Your task to perform on an android device: toggle pop-ups in chrome Image 0: 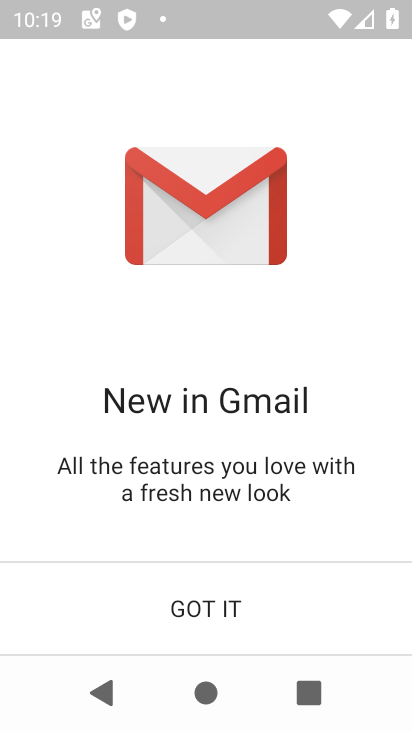
Step 0: press home button
Your task to perform on an android device: toggle pop-ups in chrome Image 1: 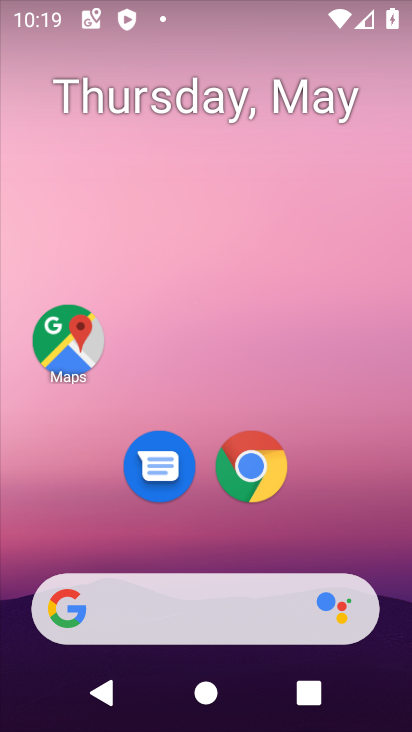
Step 1: click (257, 461)
Your task to perform on an android device: toggle pop-ups in chrome Image 2: 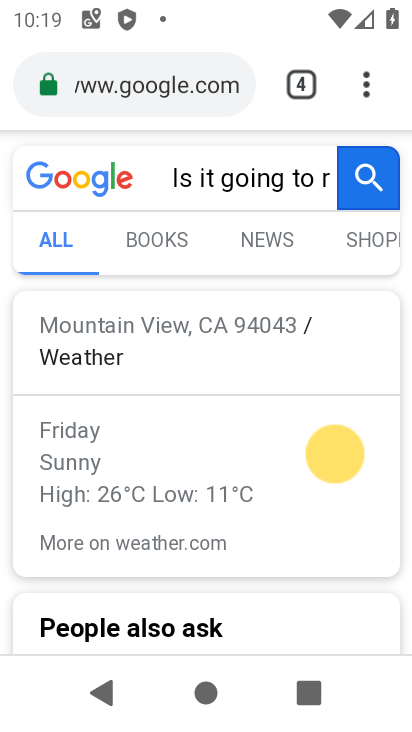
Step 2: click (364, 72)
Your task to perform on an android device: toggle pop-ups in chrome Image 3: 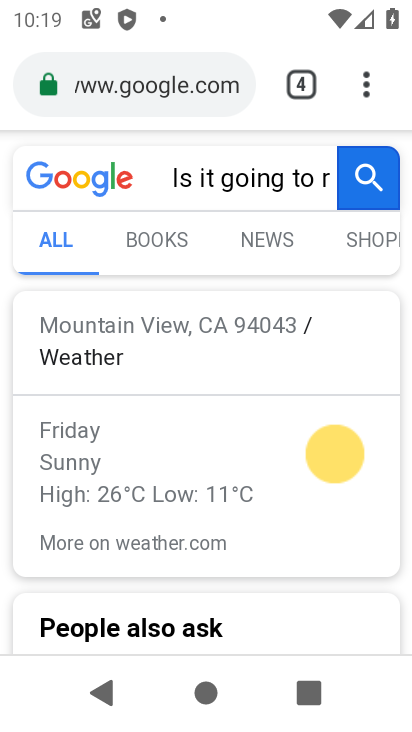
Step 3: click (371, 85)
Your task to perform on an android device: toggle pop-ups in chrome Image 4: 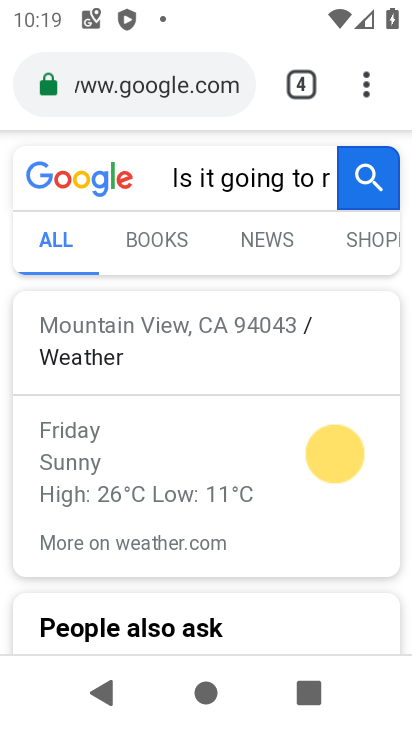
Step 4: click (352, 82)
Your task to perform on an android device: toggle pop-ups in chrome Image 5: 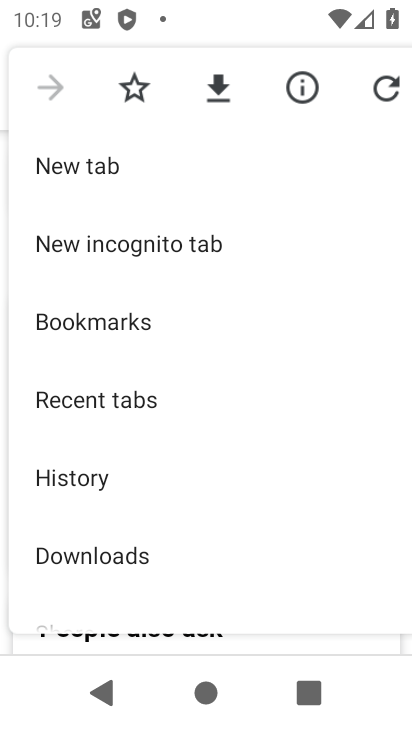
Step 5: drag from (222, 533) to (193, 190)
Your task to perform on an android device: toggle pop-ups in chrome Image 6: 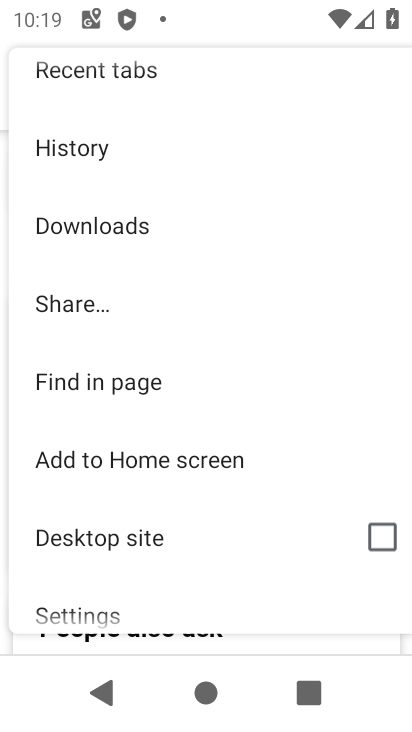
Step 6: drag from (157, 550) to (161, 309)
Your task to perform on an android device: toggle pop-ups in chrome Image 7: 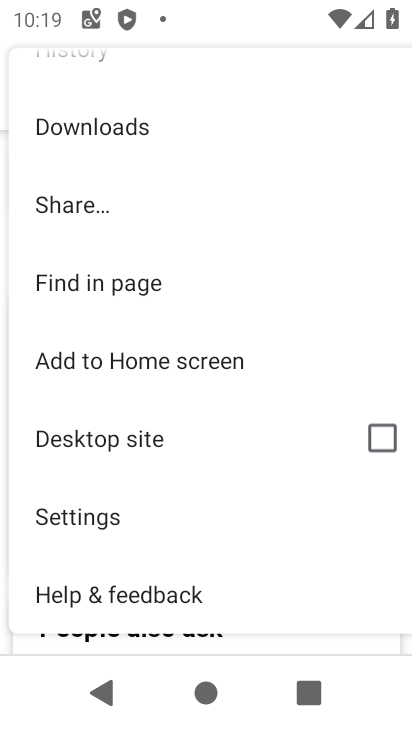
Step 7: click (139, 509)
Your task to perform on an android device: toggle pop-ups in chrome Image 8: 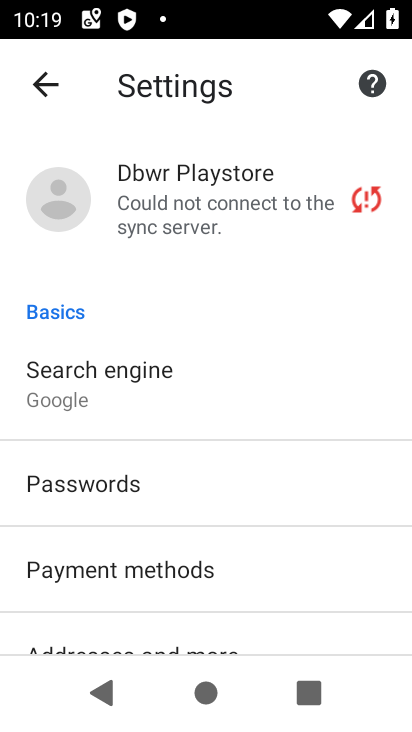
Step 8: drag from (182, 580) to (239, 257)
Your task to perform on an android device: toggle pop-ups in chrome Image 9: 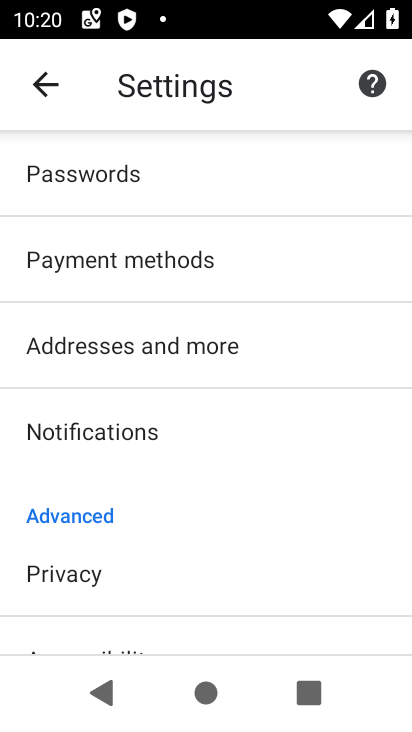
Step 9: drag from (125, 573) to (195, 242)
Your task to perform on an android device: toggle pop-ups in chrome Image 10: 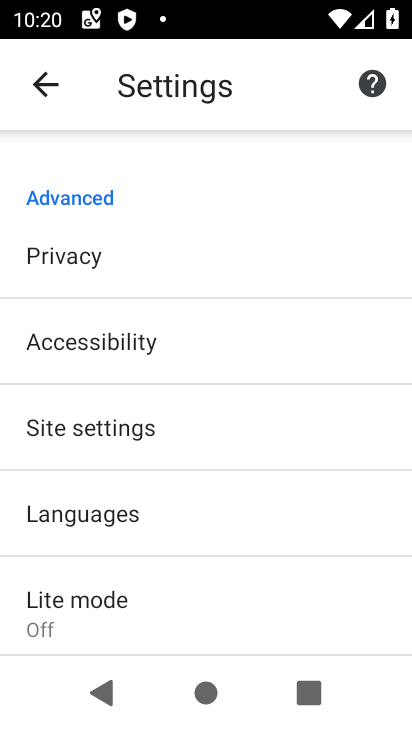
Step 10: click (136, 421)
Your task to perform on an android device: toggle pop-ups in chrome Image 11: 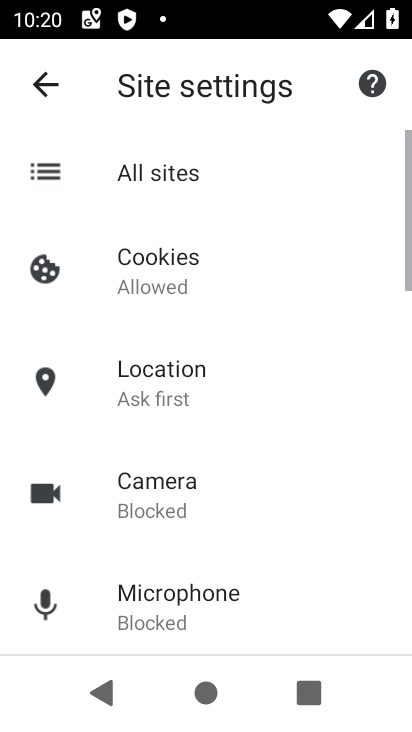
Step 11: drag from (180, 596) to (280, 197)
Your task to perform on an android device: toggle pop-ups in chrome Image 12: 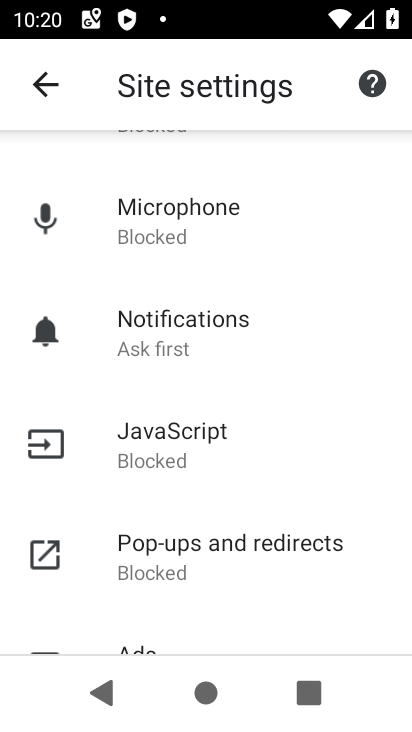
Step 12: click (167, 558)
Your task to perform on an android device: toggle pop-ups in chrome Image 13: 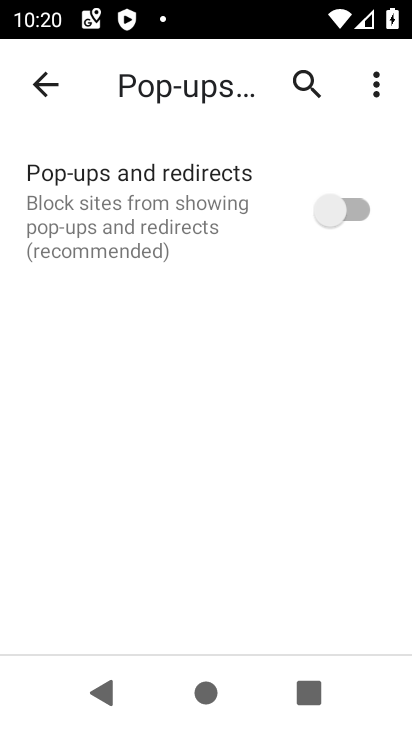
Step 13: click (345, 206)
Your task to perform on an android device: toggle pop-ups in chrome Image 14: 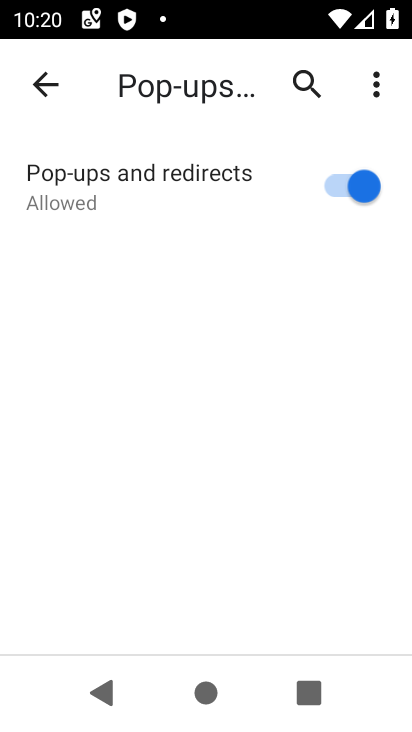
Step 14: drag from (275, 540) to (280, 295)
Your task to perform on an android device: toggle pop-ups in chrome Image 15: 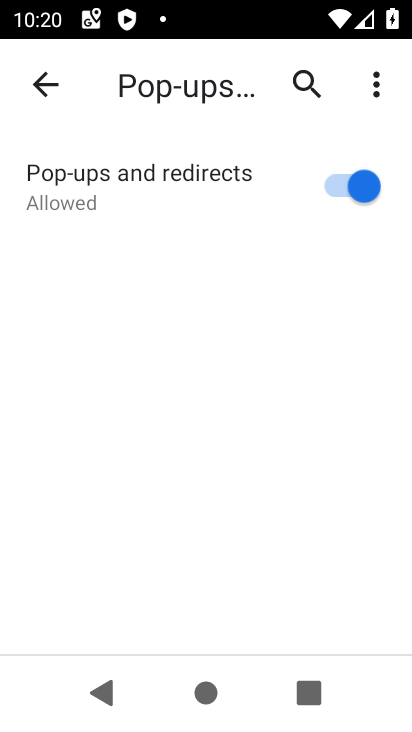
Step 15: press home button
Your task to perform on an android device: toggle pop-ups in chrome Image 16: 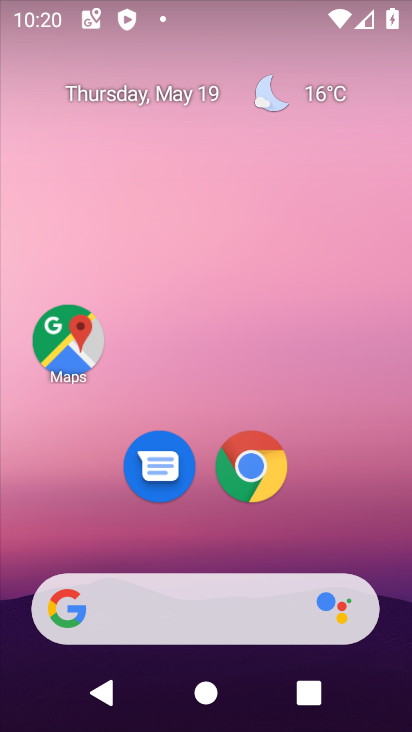
Step 16: click (254, 471)
Your task to perform on an android device: toggle pop-ups in chrome Image 17: 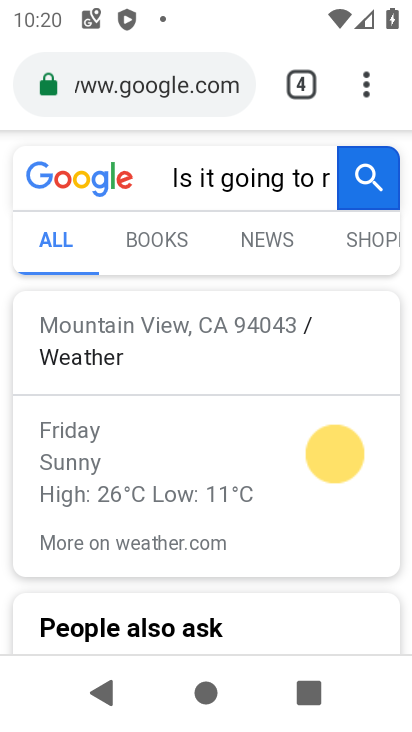
Step 17: click (372, 63)
Your task to perform on an android device: toggle pop-ups in chrome Image 18: 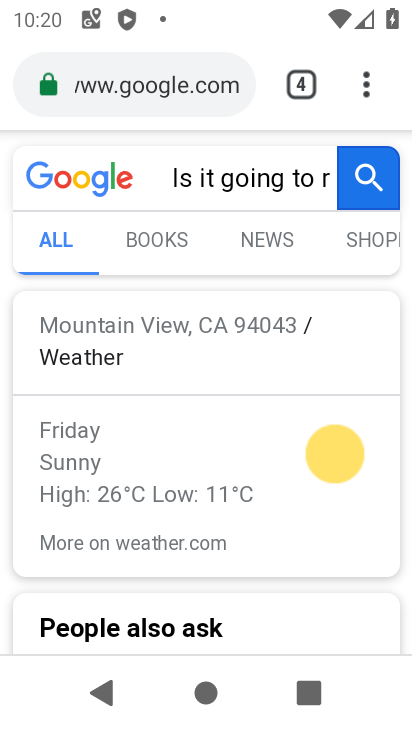
Step 18: click (376, 78)
Your task to perform on an android device: toggle pop-ups in chrome Image 19: 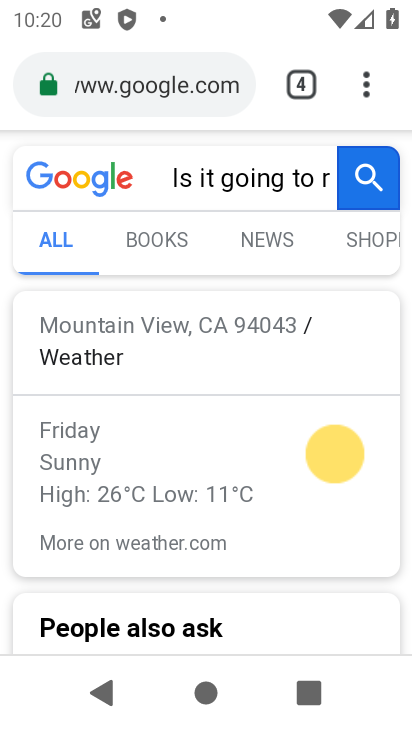
Step 19: click (361, 94)
Your task to perform on an android device: toggle pop-ups in chrome Image 20: 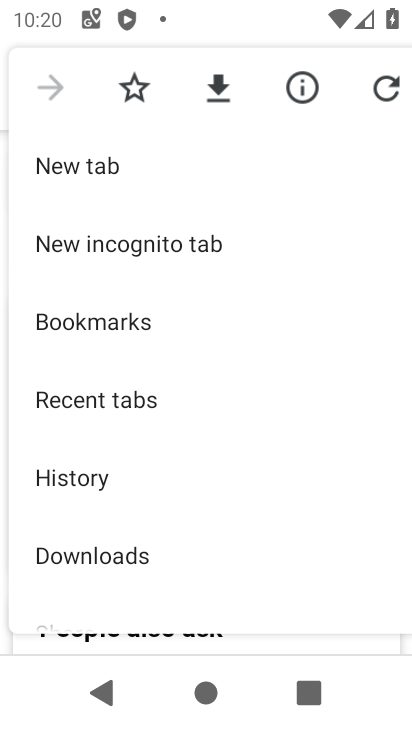
Step 20: drag from (192, 500) to (267, 180)
Your task to perform on an android device: toggle pop-ups in chrome Image 21: 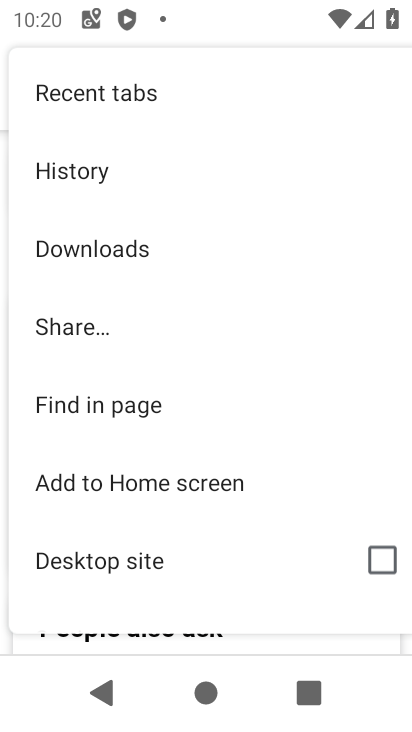
Step 21: drag from (133, 551) to (256, 170)
Your task to perform on an android device: toggle pop-ups in chrome Image 22: 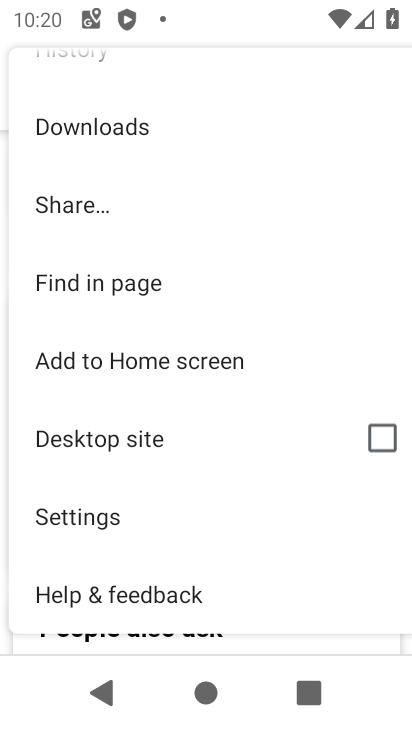
Step 22: click (99, 503)
Your task to perform on an android device: toggle pop-ups in chrome Image 23: 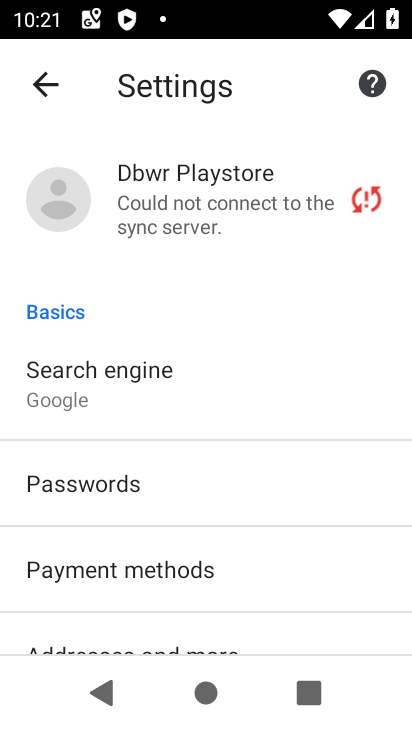
Step 23: drag from (91, 580) to (201, 202)
Your task to perform on an android device: toggle pop-ups in chrome Image 24: 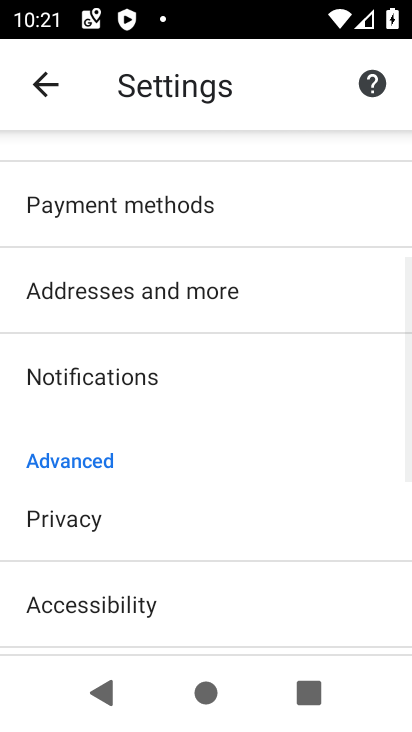
Step 24: drag from (135, 578) to (214, 217)
Your task to perform on an android device: toggle pop-ups in chrome Image 25: 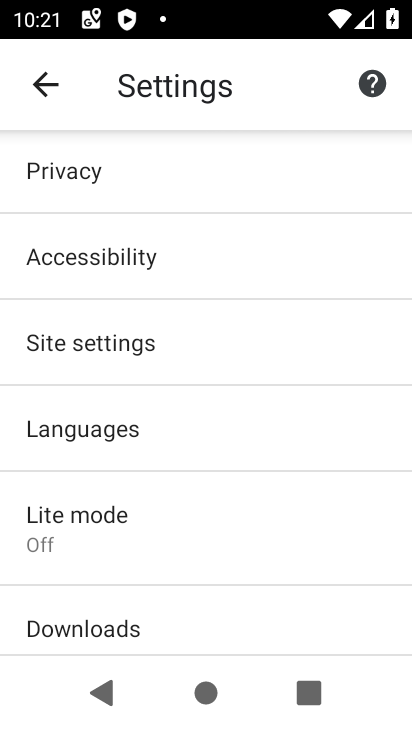
Step 25: click (122, 305)
Your task to perform on an android device: toggle pop-ups in chrome Image 26: 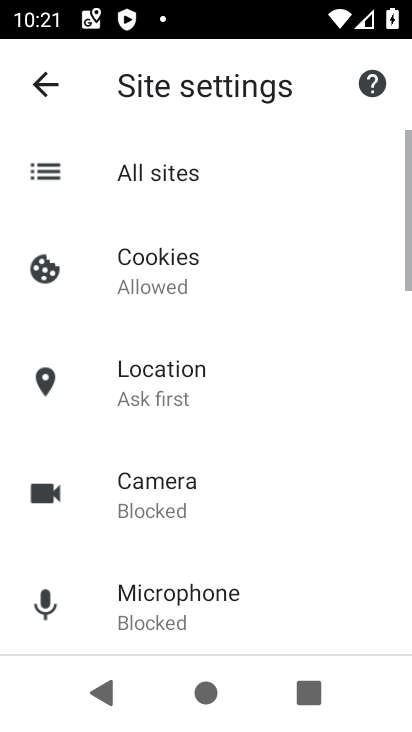
Step 26: drag from (199, 554) to (209, 178)
Your task to perform on an android device: toggle pop-ups in chrome Image 27: 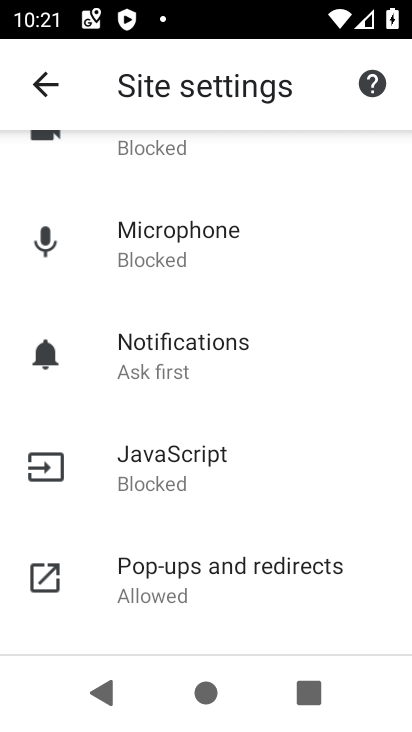
Step 27: click (164, 563)
Your task to perform on an android device: toggle pop-ups in chrome Image 28: 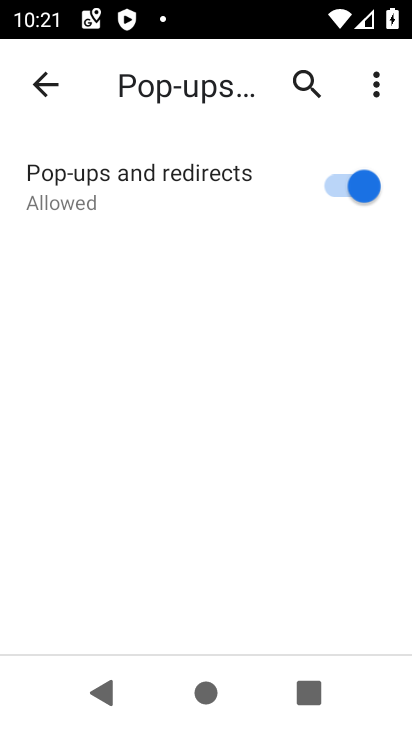
Step 28: click (340, 205)
Your task to perform on an android device: toggle pop-ups in chrome Image 29: 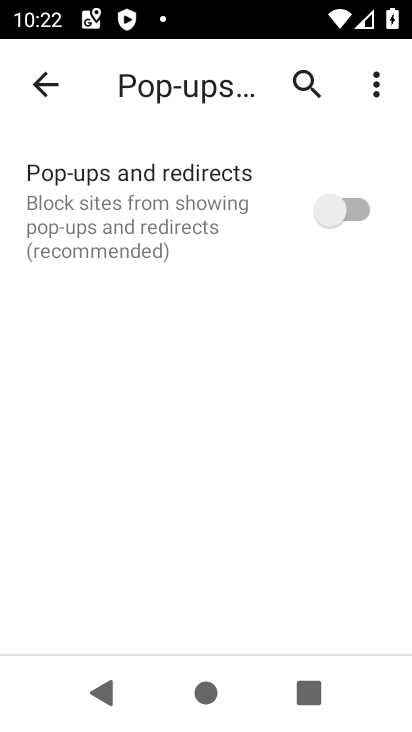
Step 29: task complete